Your task to perform on an android device: check android version Image 0: 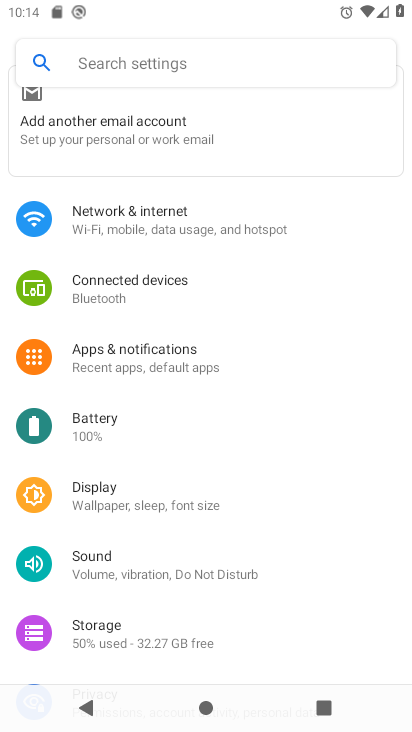
Step 0: drag from (202, 629) to (213, 209)
Your task to perform on an android device: check android version Image 1: 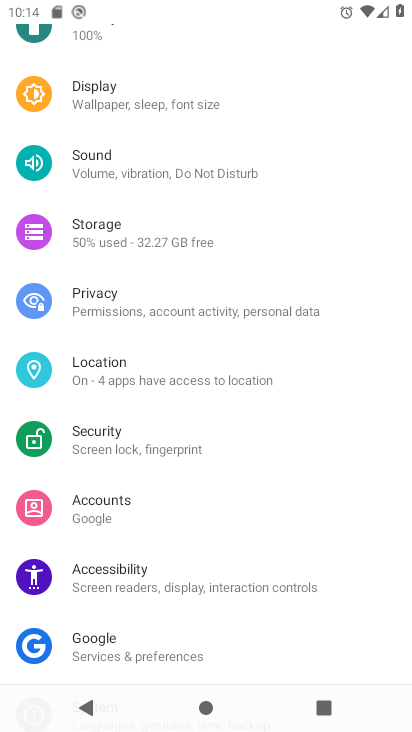
Step 1: drag from (160, 613) to (192, 132)
Your task to perform on an android device: check android version Image 2: 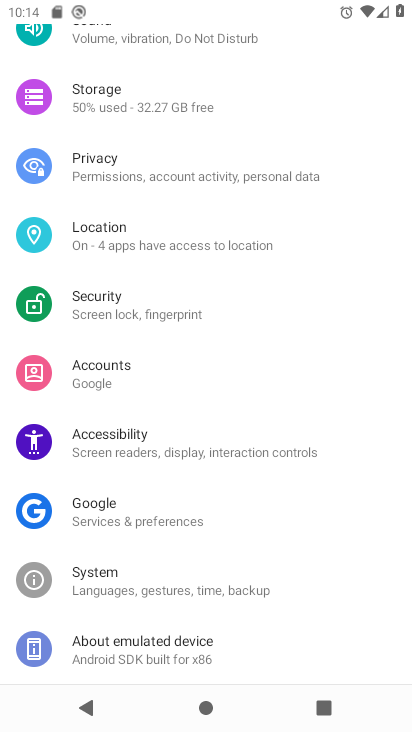
Step 2: click (167, 644)
Your task to perform on an android device: check android version Image 3: 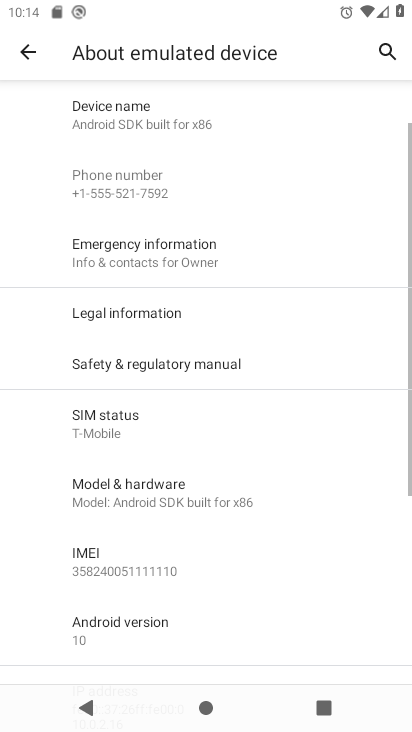
Step 3: drag from (227, 552) to (246, 277)
Your task to perform on an android device: check android version Image 4: 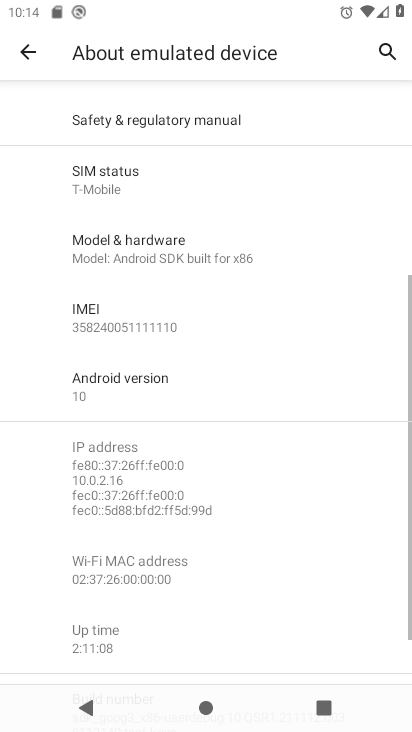
Step 4: click (208, 386)
Your task to perform on an android device: check android version Image 5: 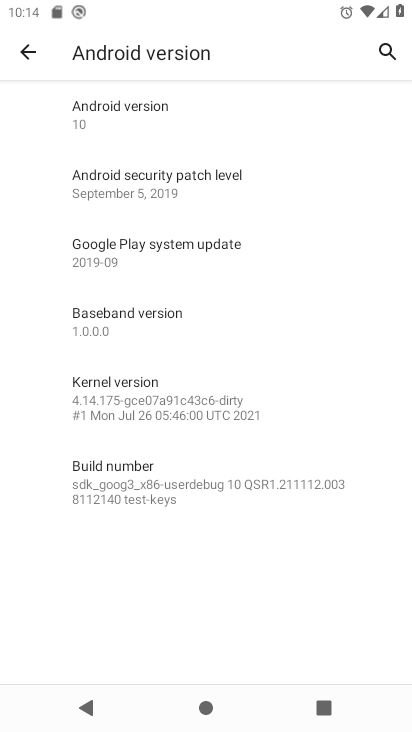
Step 5: task complete